Your task to perform on an android device: check android version Image 0: 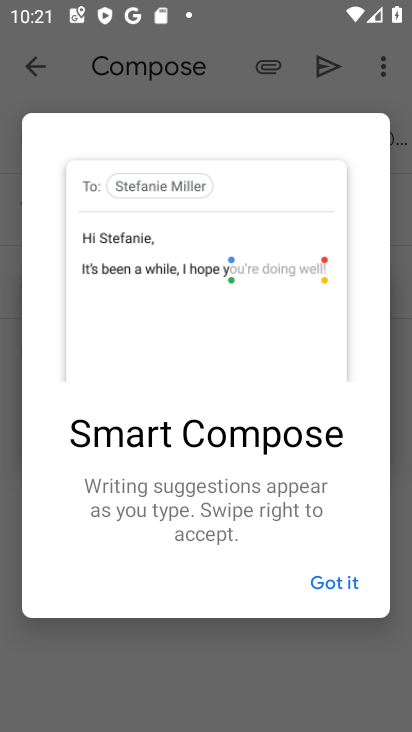
Step 0: press home button
Your task to perform on an android device: check android version Image 1: 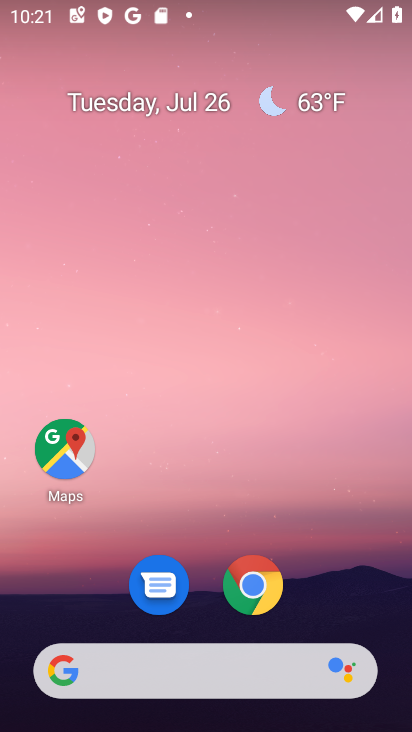
Step 1: drag from (316, 582) to (371, 101)
Your task to perform on an android device: check android version Image 2: 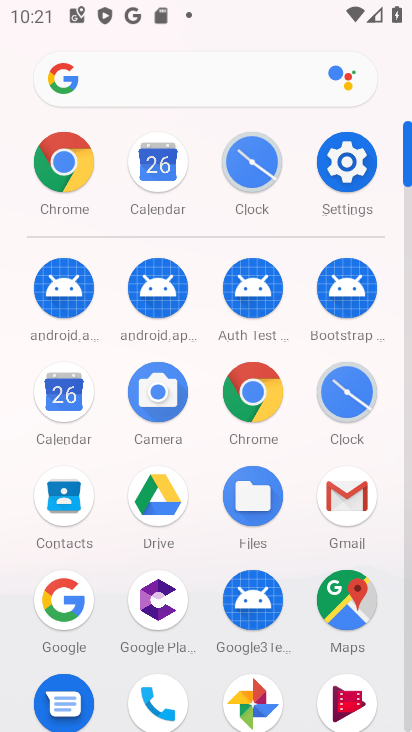
Step 2: click (347, 155)
Your task to perform on an android device: check android version Image 3: 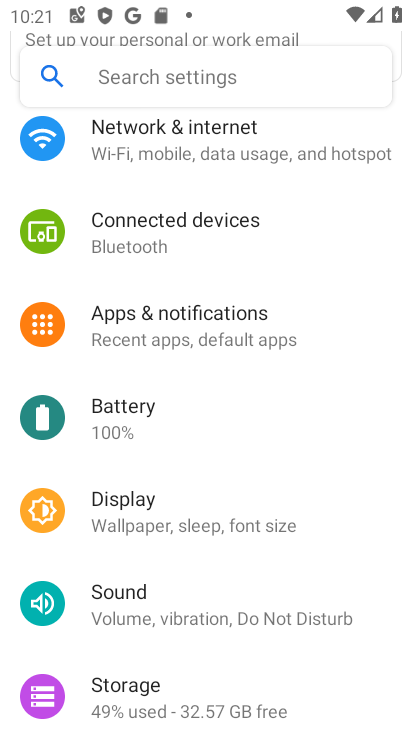
Step 3: drag from (230, 657) to (299, 26)
Your task to perform on an android device: check android version Image 4: 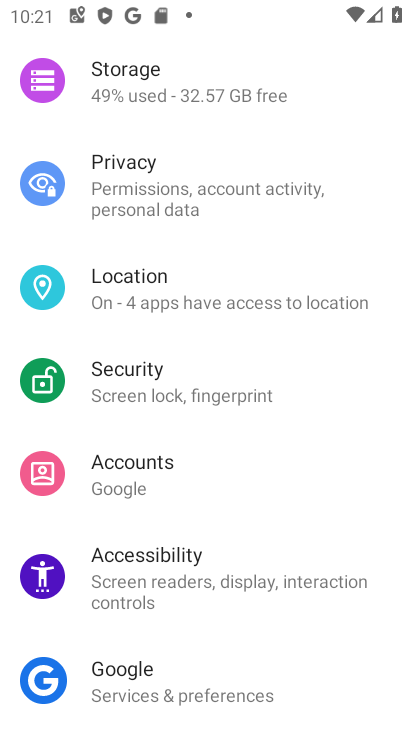
Step 4: drag from (227, 508) to (256, 15)
Your task to perform on an android device: check android version Image 5: 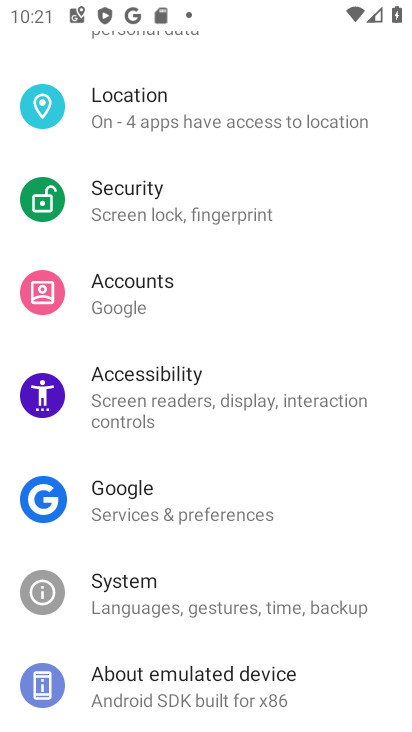
Step 5: click (176, 679)
Your task to perform on an android device: check android version Image 6: 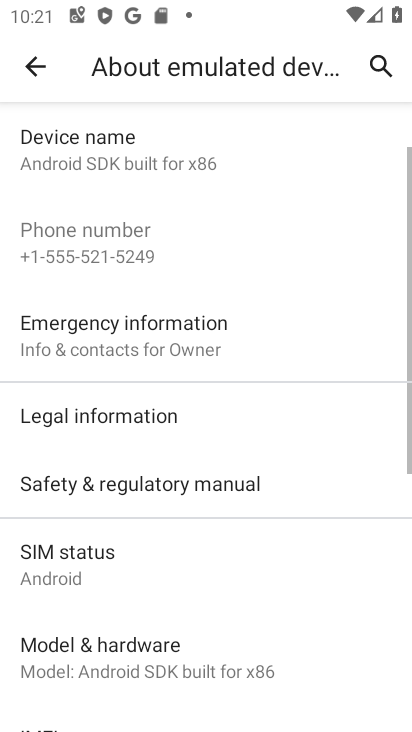
Step 6: drag from (251, 569) to (325, 152)
Your task to perform on an android device: check android version Image 7: 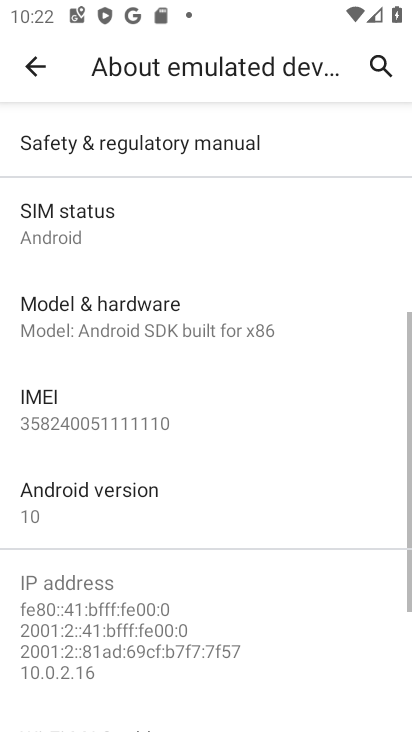
Step 7: click (176, 514)
Your task to perform on an android device: check android version Image 8: 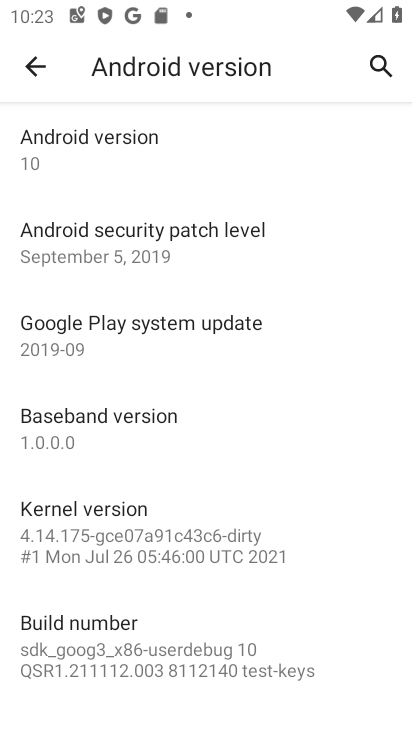
Step 8: task complete